Your task to perform on an android device: move a message to another label in the gmail app Image 0: 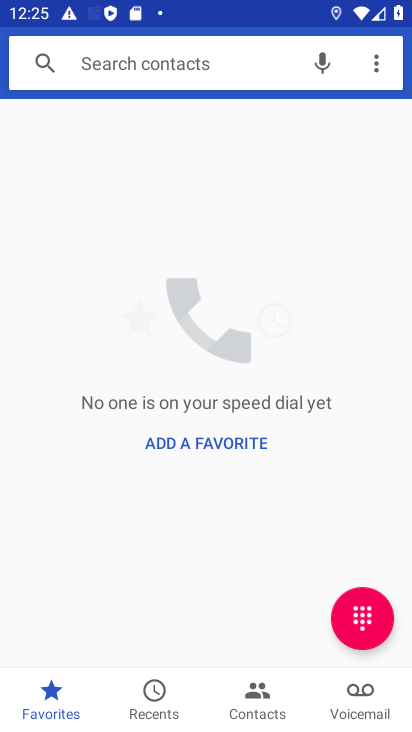
Step 0: press home button
Your task to perform on an android device: move a message to another label in the gmail app Image 1: 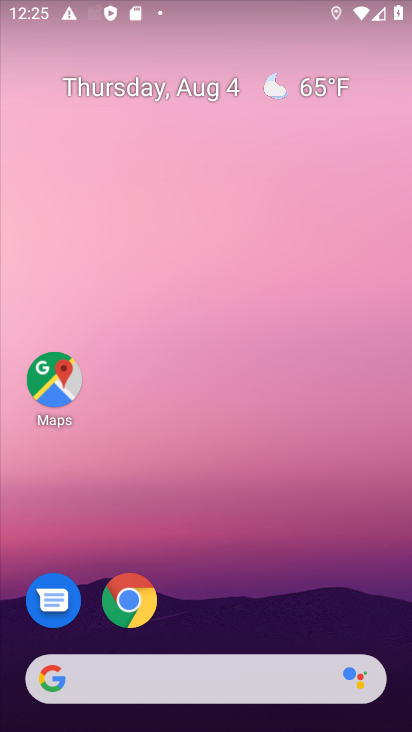
Step 1: drag from (228, 627) to (141, 97)
Your task to perform on an android device: move a message to another label in the gmail app Image 2: 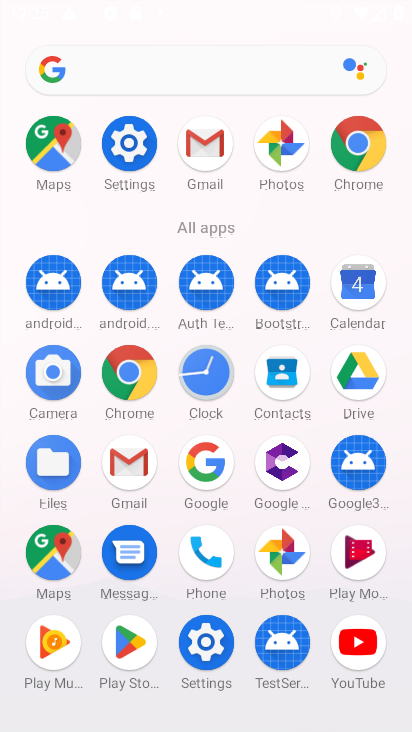
Step 2: click (131, 466)
Your task to perform on an android device: move a message to another label in the gmail app Image 3: 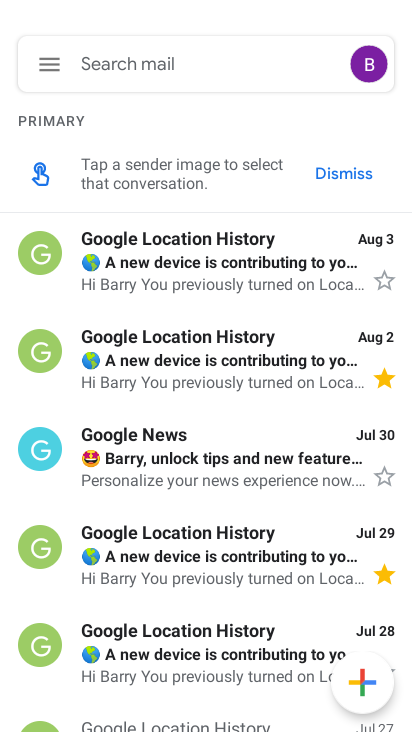
Step 3: click (145, 243)
Your task to perform on an android device: move a message to another label in the gmail app Image 4: 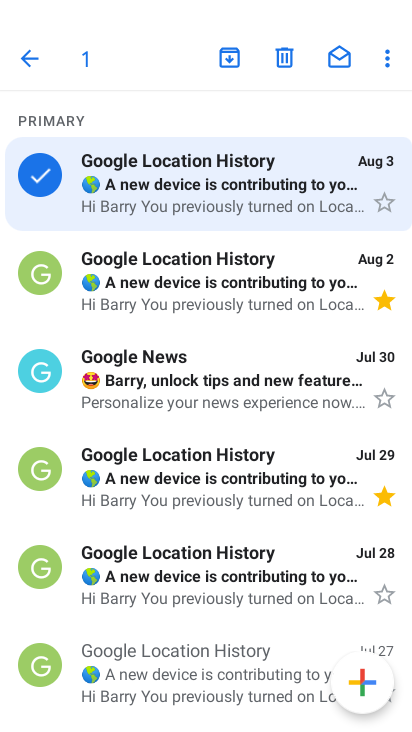
Step 4: click (387, 53)
Your task to perform on an android device: move a message to another label in the gmail app Image 5: 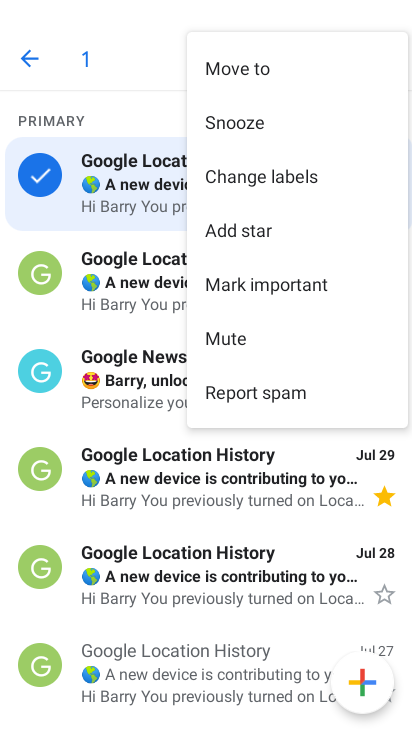
Step 5: click (278, 69)
Your task to perform on an android device: move a message to another label in the gmail app Image 6: 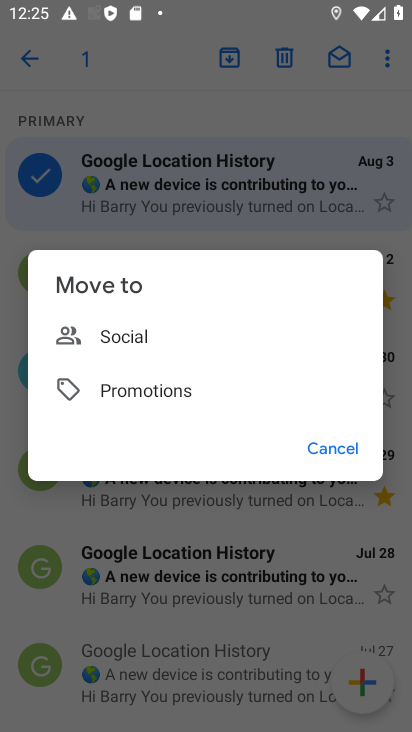
Step 6: click (206, 328)
Your task to perform on an android device: move a message to another label in the gmail app Image 7: 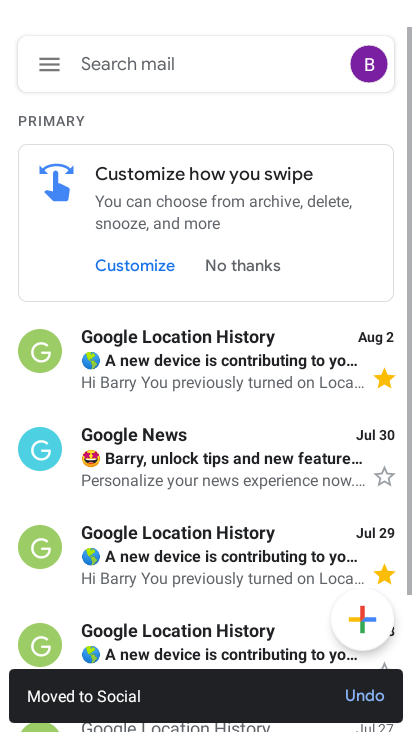
Step 7: task complete